Your task to perform on an android device: toggle location history Image 0: 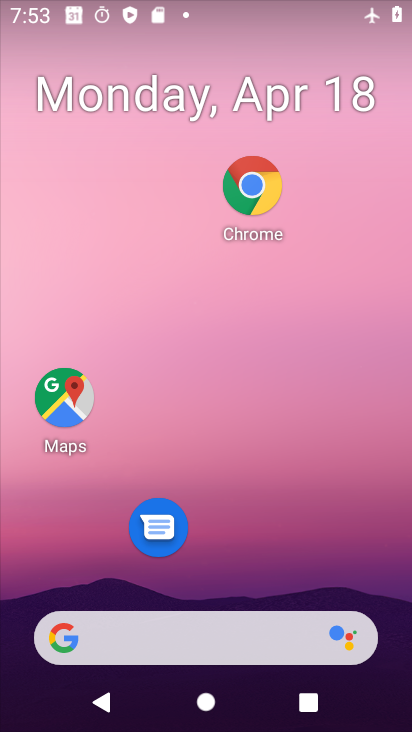
Step 0: drag from (297, 530) to (337, 191)
Your task to perform on an android device: toggle location history Image 1: 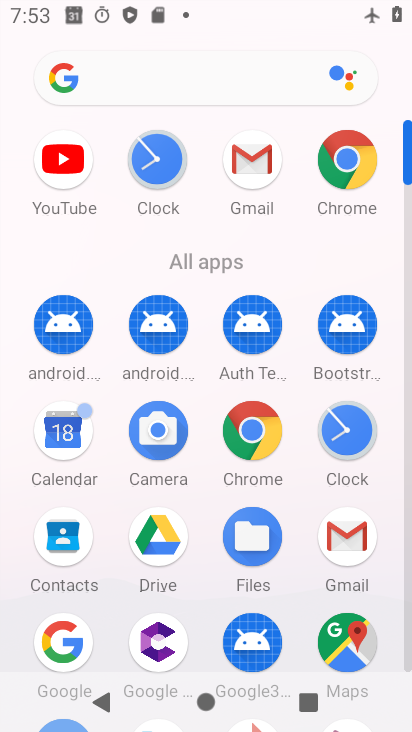
Step 1: drag from (287, 583) to (321, 202)
Your task to perform on an android device: toggle location history Image 2: 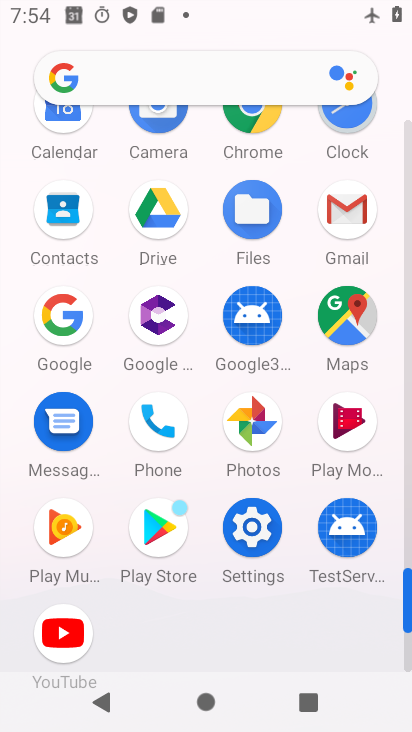
Step 2: click (240, 523)
Your task to perform on an android device: toggle location history Image 3: 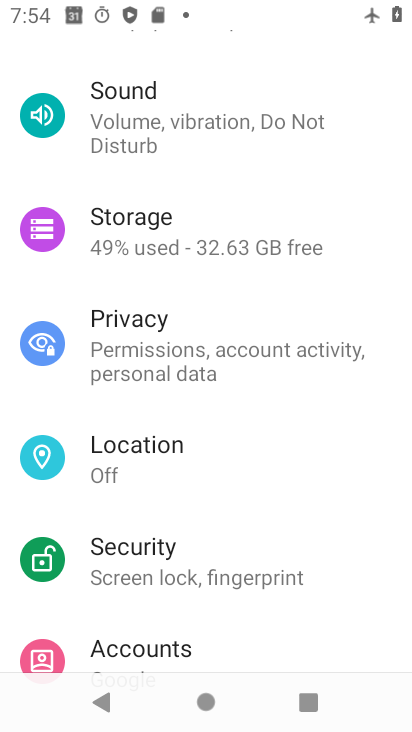
Step 3: click (182, 462)
Your task to perform on an android device: toggle location history Image 4: 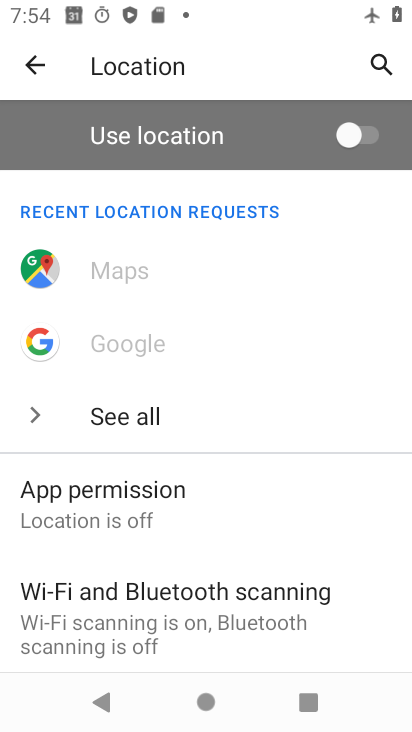
Step 4: drag from (212, 587) to (308, 302)
Your task to perform on an android device: toggle location history Image 5: 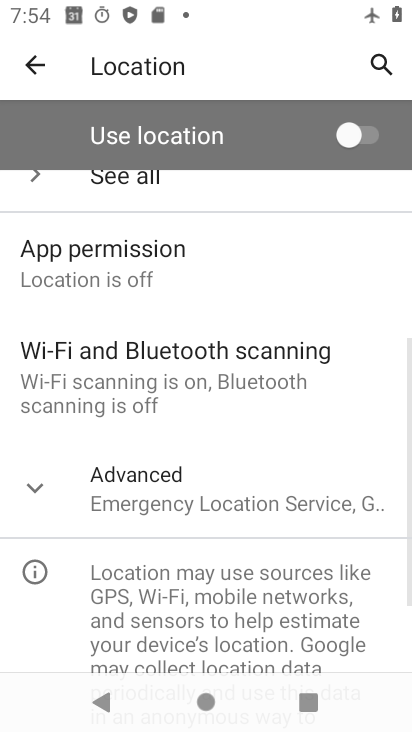
Step 5: click (183, 488)
Your task to perform on an android device: toggle location history Image 6: 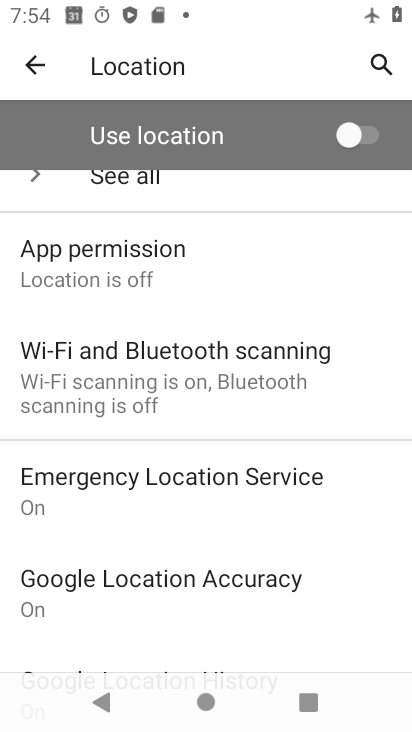
Step 6: drag from (165, 560) to (221, 336)
Your task to perform on an android device: toggle location history Image 7: 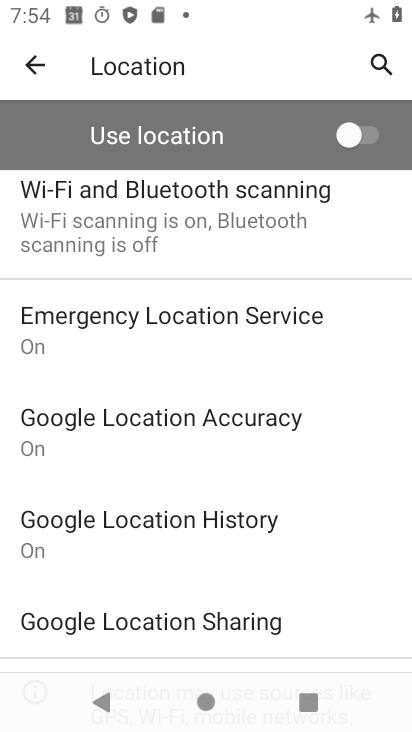
Step 7: click (209, 507)
Your task to perform on an android device: toggle location history Image 8: 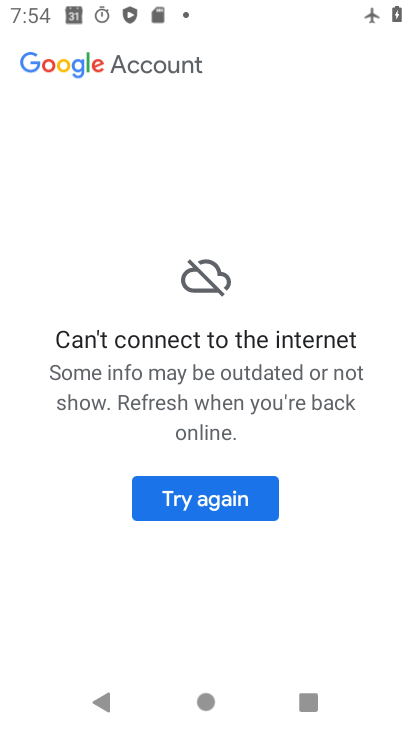
Step 8: click (226, 480)
Your task to perform on an android device: toggle location history Image 9: 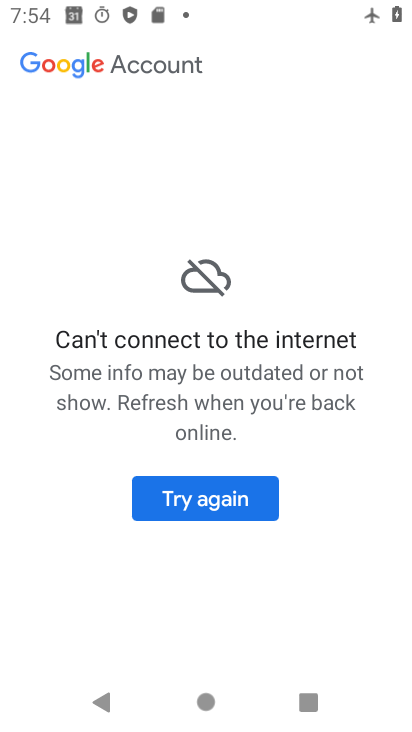
Step 9: click (224, 532)
Your task to perform on an android device: toggle location history Image 10: 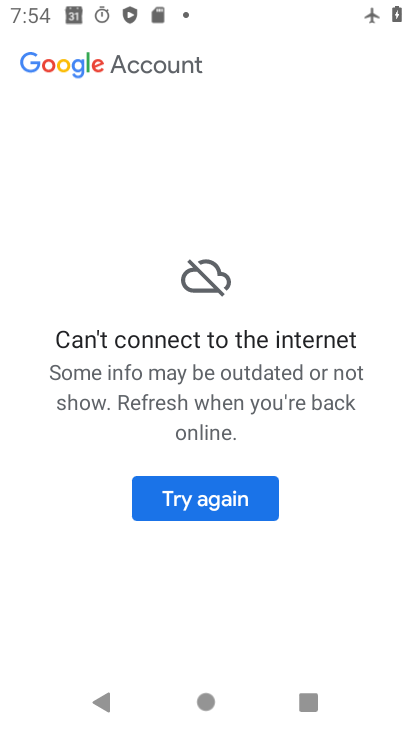
Step 10: click (225, 513)
Your task to perform on an android device: toggle location history Image 11: 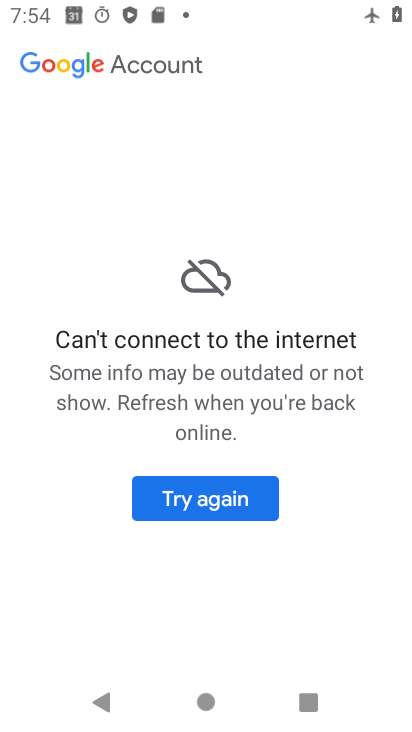
Step 11: task complete